Your task to perform on an android device: Open Youtube and go to the subscriptions tab Image 0: 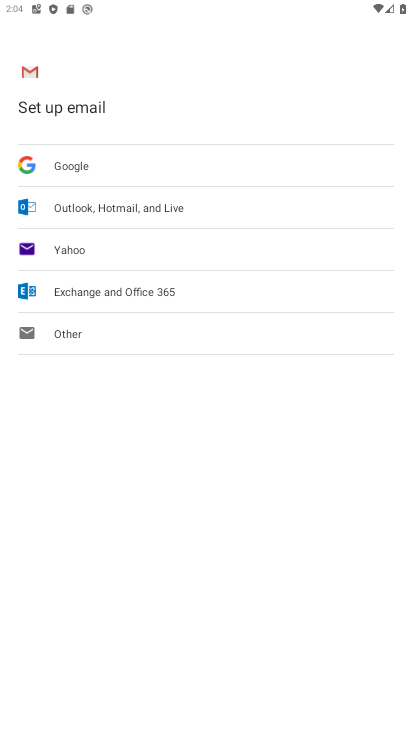
Step 0: press home button
Your task to perform on an android device: Open Youtube and go to the subscriptions tab Image 1: 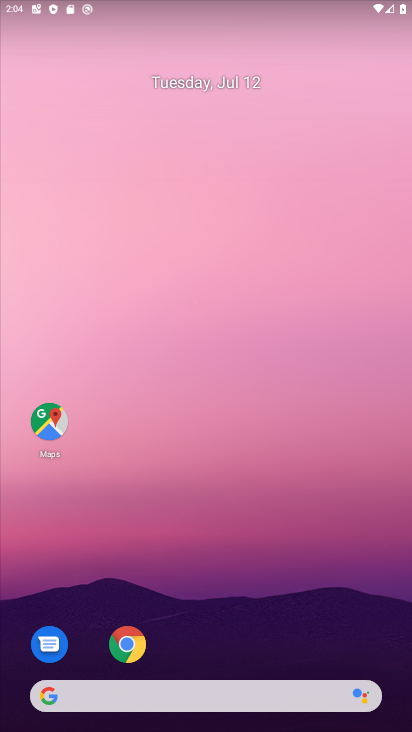
Step 1: drag from (213, 665) to (213, 104)
Your task to perform on an android device: Open Youtube and go to the subscriptions tab Image 2: 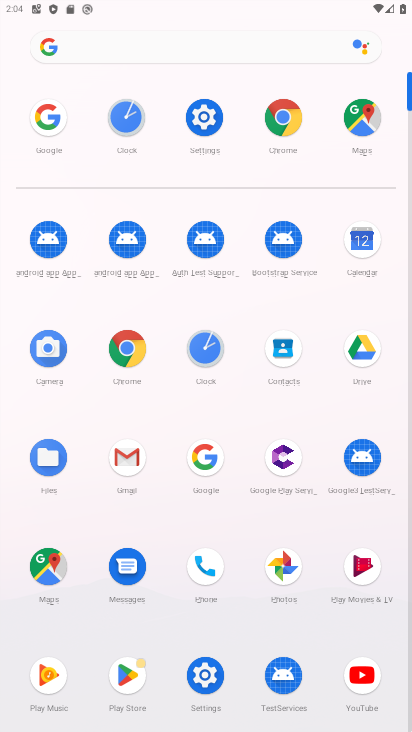
Step 2: click (363, 686)
Your task to perform on an android device: Open Youtube and go to the subscriptions tab Image 3: 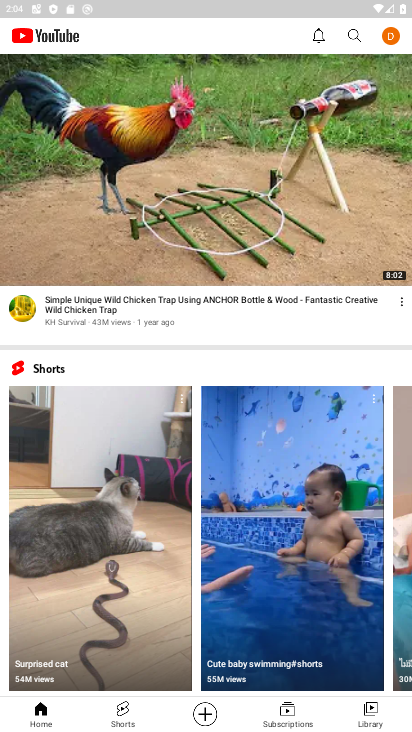
Step 3: click (288, 710)
Your task to perform on an android device: Open Youtube and go to the subscriptions tab Image 4: 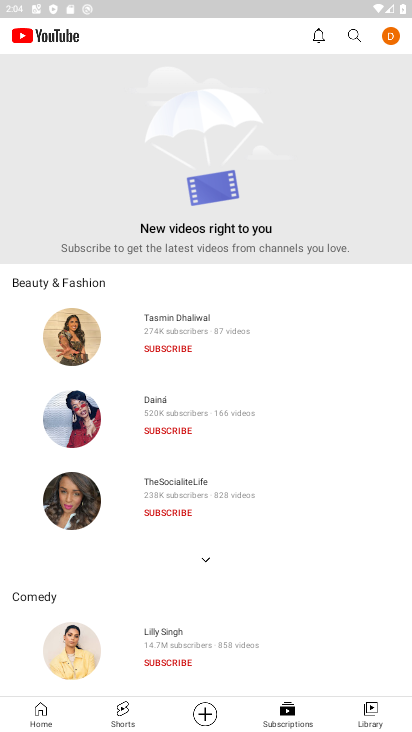
Step 4: task complete